Your task to perform on an android device: Show me productivity apps on the Play Store Image 0: 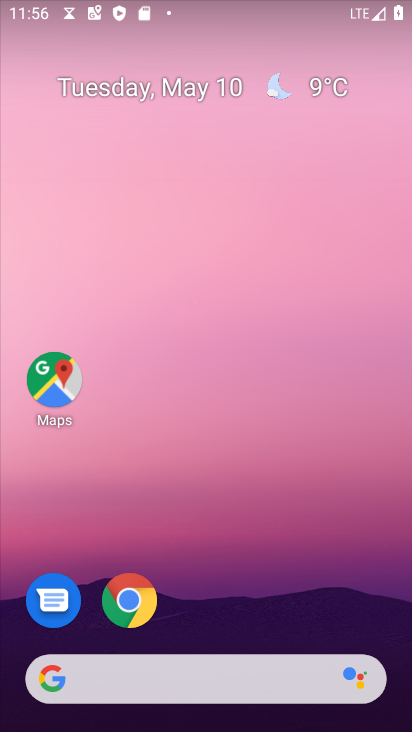
Step 0: drag from (251, 391) to (209, 125)
Your task to perform on an android device: Show me productivity apps on the Play Store Image 1: 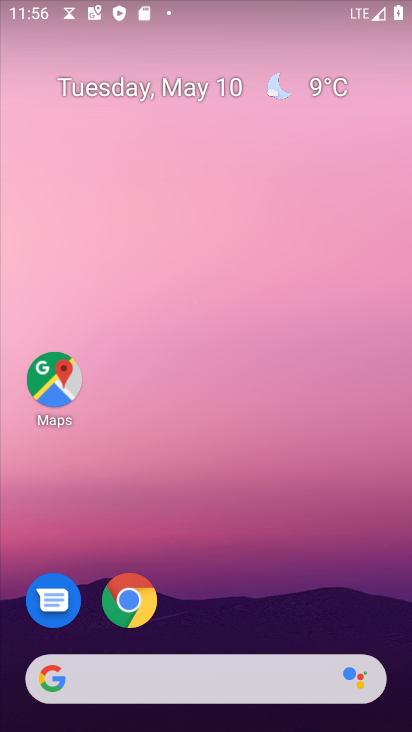
Step 1: drag from (224, 574) to (203, 72)
Your task to perform on an android device: Show me productivity apps on the Play Store Image 2: 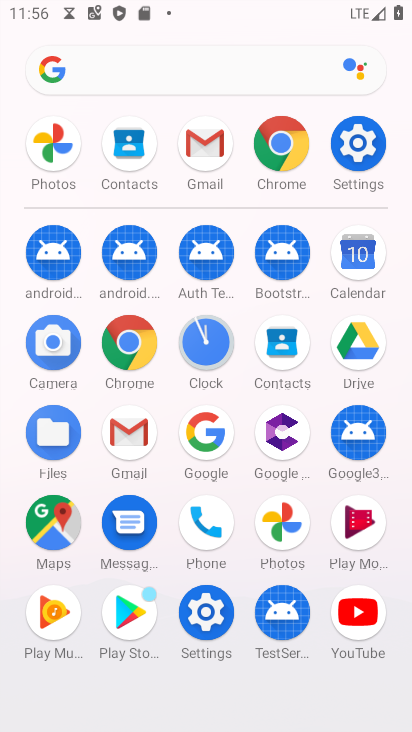
Step 2: click (132, 616)
Your task to perform on an android device: Show me productivity apps on the Play Store Image 3: 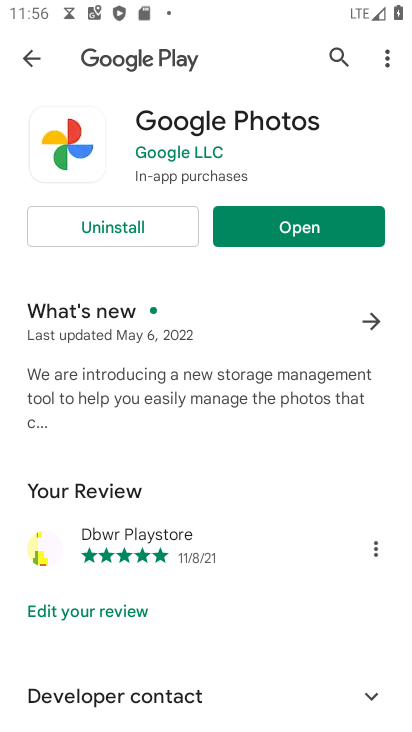
Step 3: click (33, 63)
Your task to perform on an android device: Show me productivity apps on the Play Store Image 4: 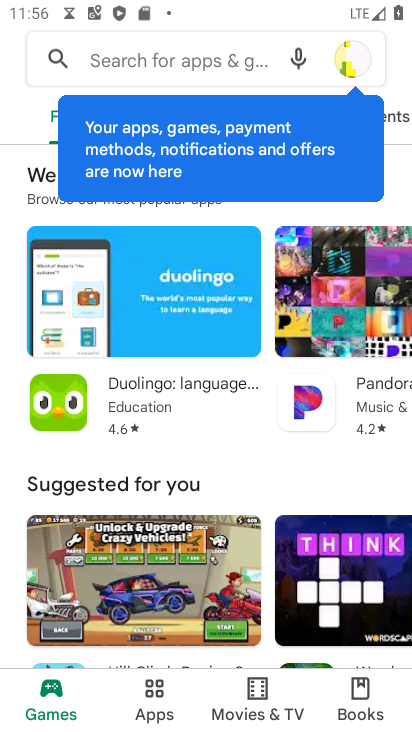
Step 4: click (139, 53)
Your task to perform on an android device: Show me productivity apps on the Play Store Image 5: 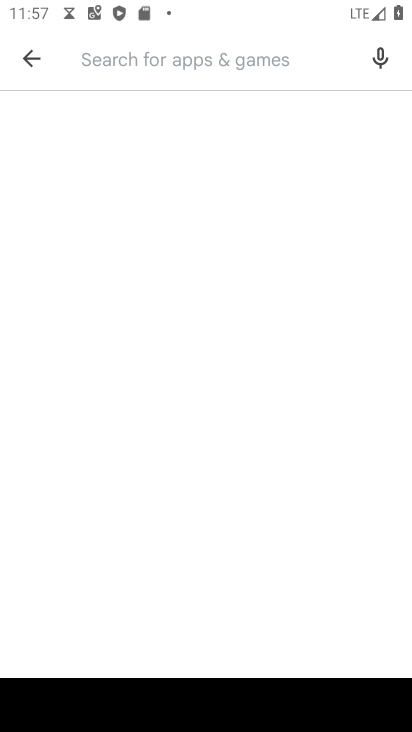
Step 5: type "productivity apps"
Your task to perform on an android device: Show me productivity apps on the Play Store Image 6: 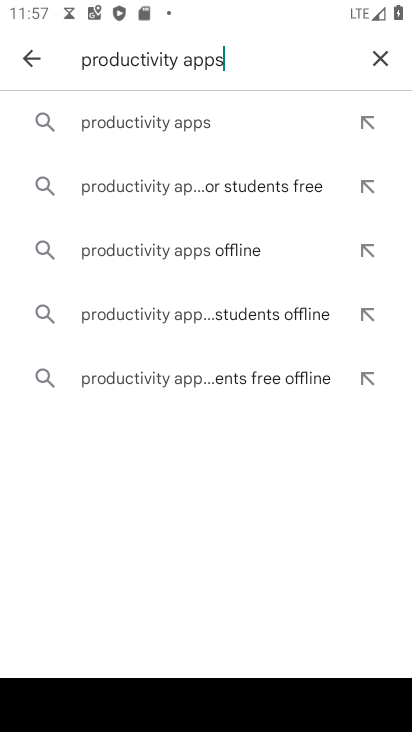
Step 6: click (205, 124)
Your task to perform on an android device: Show me productivity apps on the Play Store Image 7: 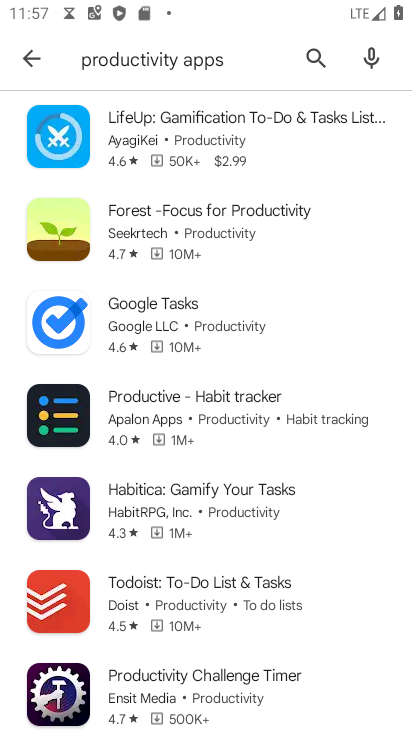
Step 7: task complete